Your task to perform on an android device: What is the news today? Image 0: 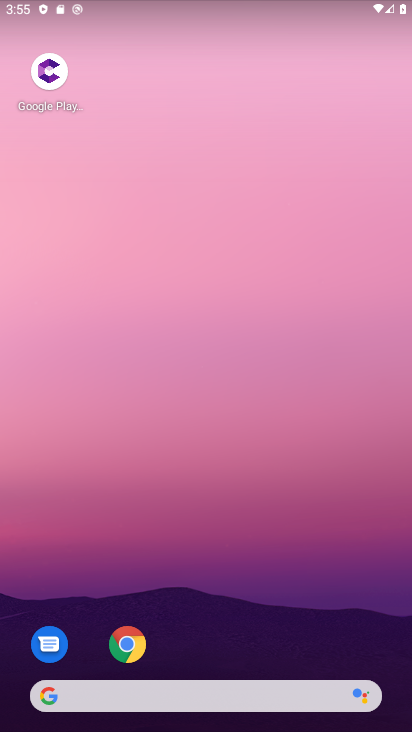
Step 0: drag from (206, 645) to (262, 236)
Your task to perform on an android device: What is the news today? Image 1: 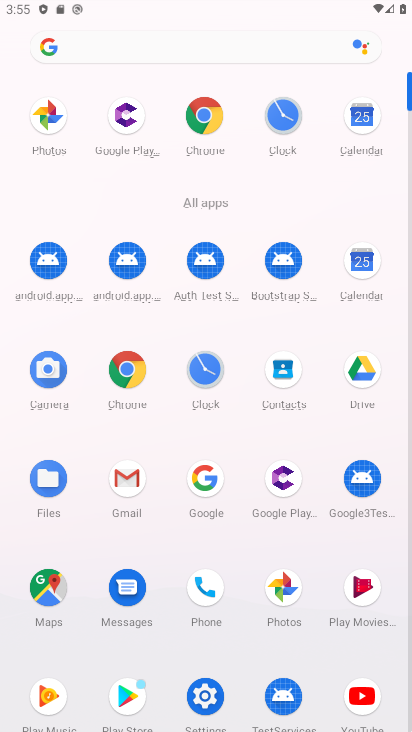
Step 1: click (205, 488)
Your task to perform on an android device: What is the news today? Image 2: 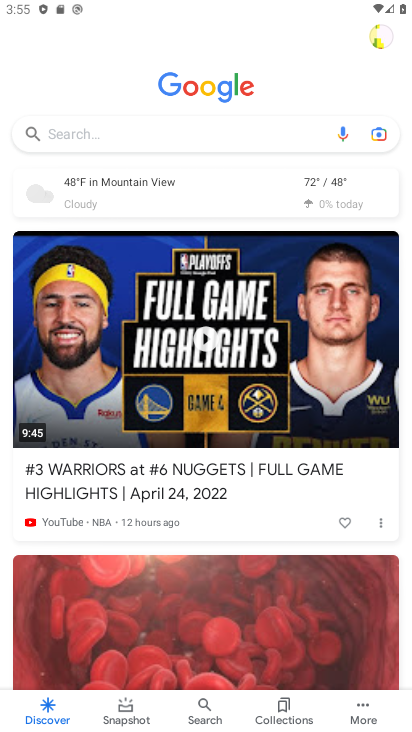
Step 2: click (172, 135)
Your task to perform on an android device: What is the news today? Image 3: 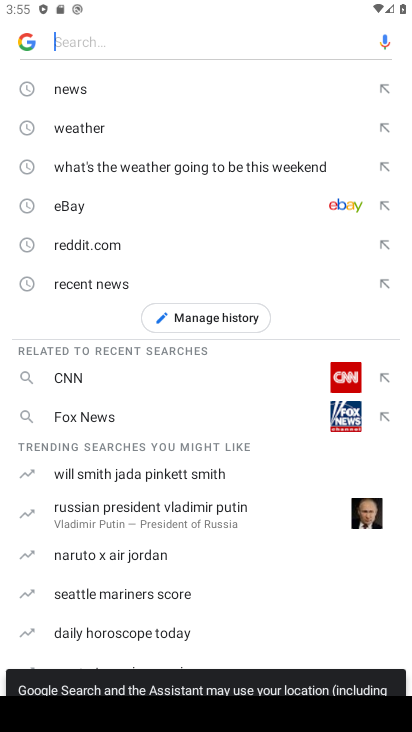
Step 3: click (145, 89)
Your task to perform on an android device: What is the news today? Image 4: 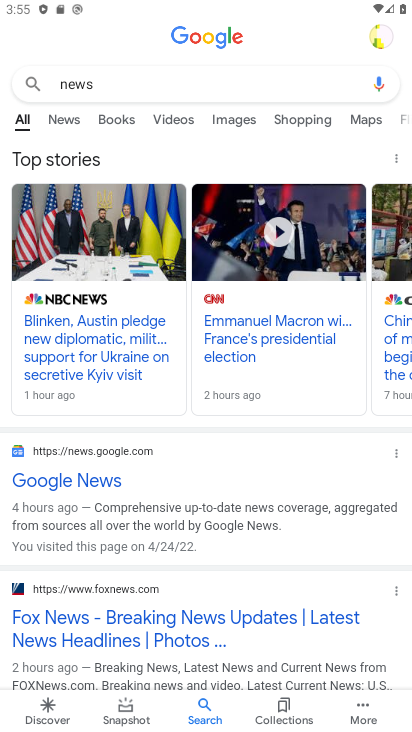
Step 4: click (61, 122)
Your task to perform on an android device: What is the news today? Image 5: 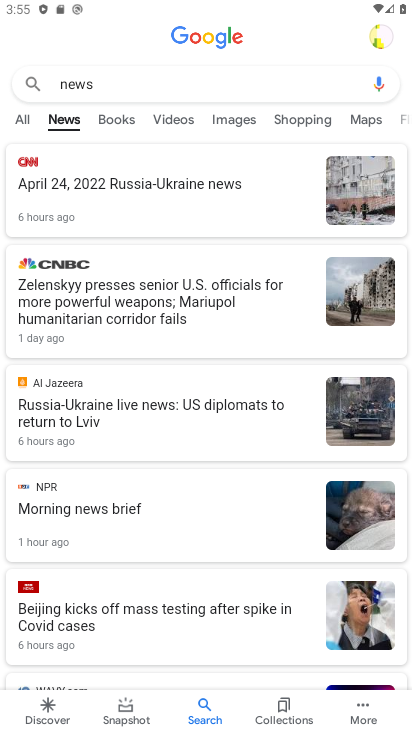
Step 5: task complete